Your task to perform on an android device: Go to Reddit.com Image 0: 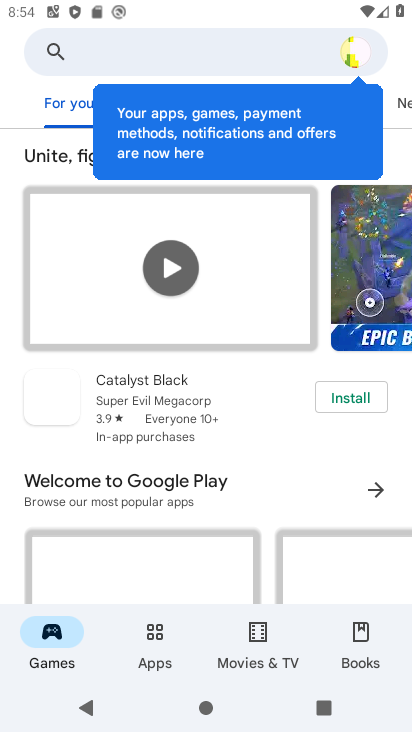
Step 0: press home button
Your task to perform on an android device: Go to Reddit.com Image 1: 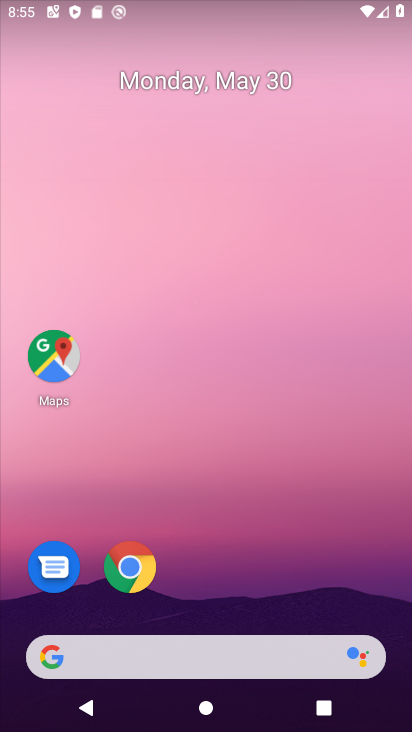
Step 1: click (244, 651)
Your task to perform on an android device: Go to Reddit.com Image 2: 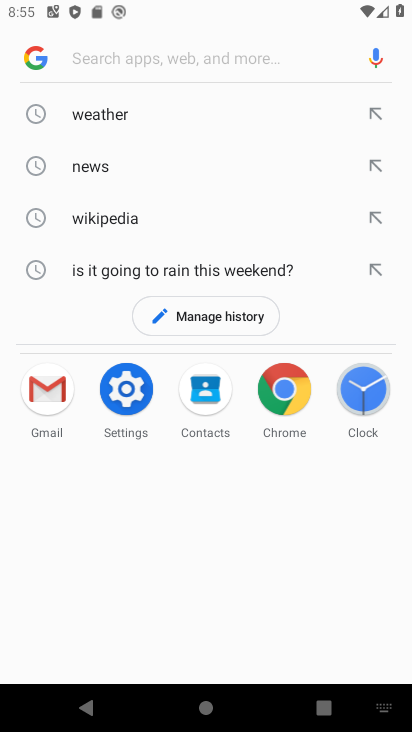
Step 2: type "reddit"
Your task to perform on an android device: Go to Reddit.com Image 3: 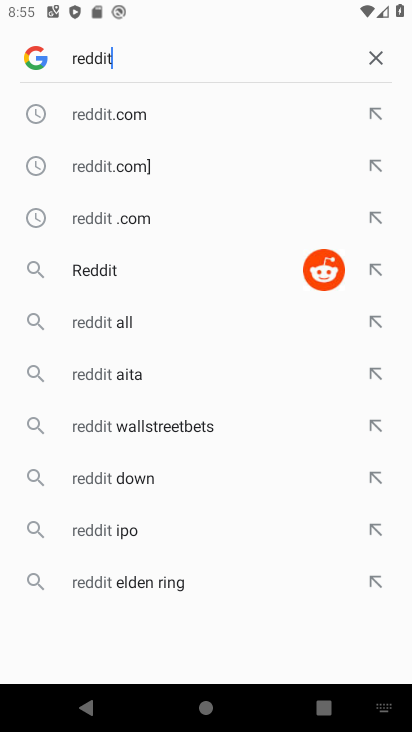
Step 3: click (126, 115)
Your task to perform on an android device: Go to Reddit.com Image 4: 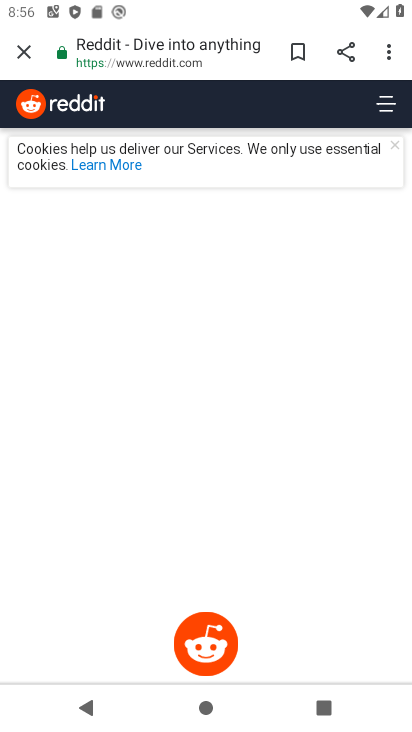
Step 4: task complete